Your task to perform on an android device: turn smart compose on in the gmail app Image 0: 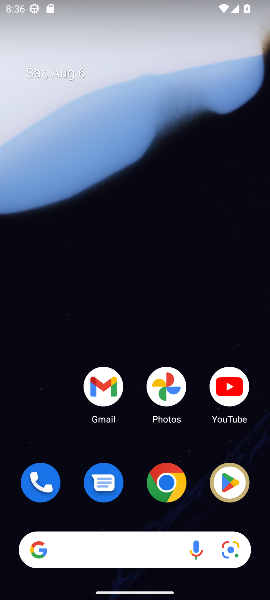
Step 0: click (110, 390)
Your task to perform on an android device: turn smart compose on in the gmail app Image 1: 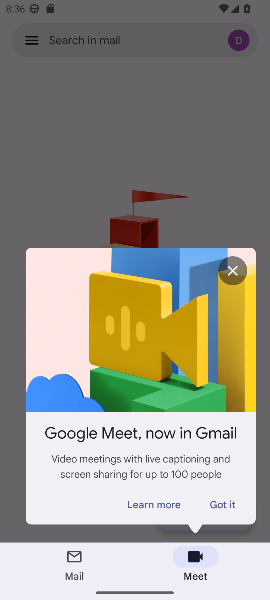
Step 1: click (83, 543)
Your task to perform on an android device: turn smart compose on in the gmail app Image 2: 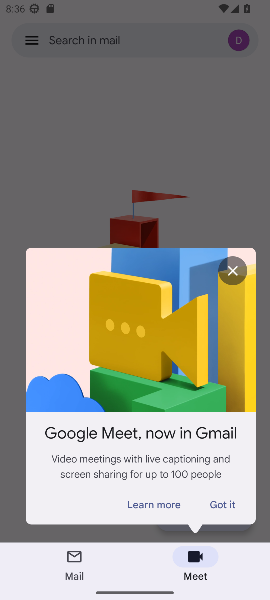
Step 2: click (232, 274)
Your task to perform on an android device: turn smart compose on in the gmail app Image 3: 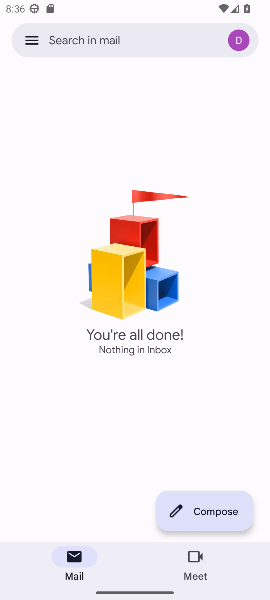
Step 3: click (41, 44)
Your task to perform on an android device: turn smart compose on in the gmail app Image 4: 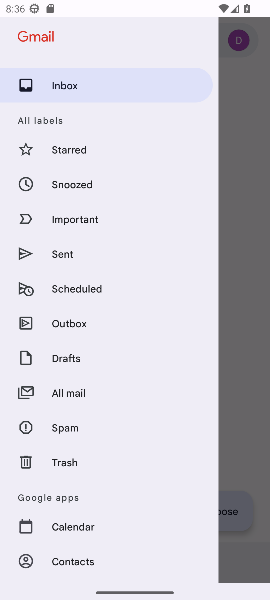
Step 4: drag from (93, 342) to (98, 312)
Your task to perform on an android device: turn smart compose on in the gmail app Image 5: 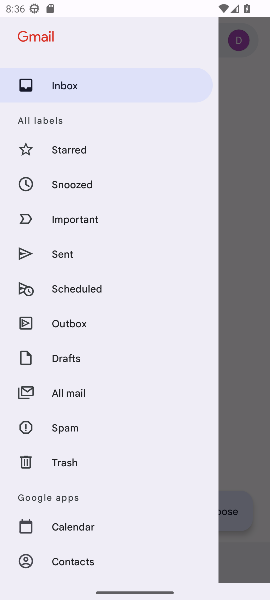
Step 5: drag from (147, 513) to (164, 230)
Your task to perform on an android device: turn smart compose on in the gmail app Image 6: 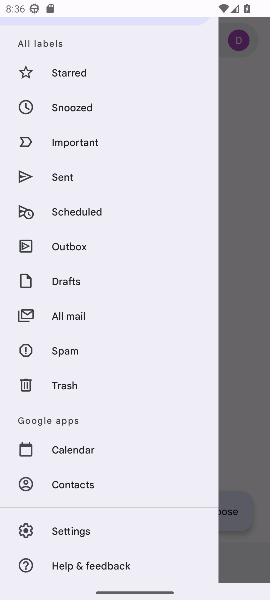
Step 6: click (58, 525)
Your task to perform on an android device: turn smart compose on in the gmail app Image 7: 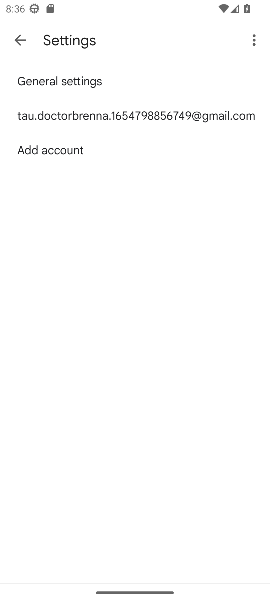
Step 7: click (122, 123)
Your task to perform on an android device: turn smart compose on in the gmail app Image 8: 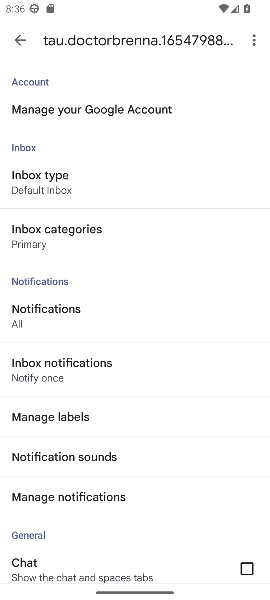
Step 8: task complete